Your task to perform on an android device: Search for flights from Seoul to Mexico city Image 0: 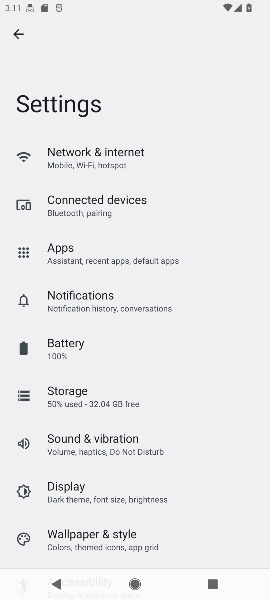
Step 0: press home button
Your task to perform on an android device: Search for flights from Seoul to Mexico city Image 1: 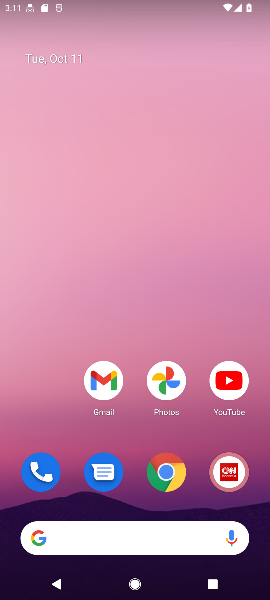
Step 1: click (164, 477)
Your task to perform on an android device: Search for flights from Seoul to Mexico city Image 2: 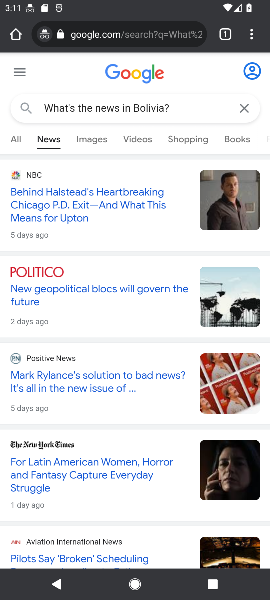
Step 2: click (250, 108)
Your task to perform on an android device: Search for flights from Seoul to Mexico city Image 3: 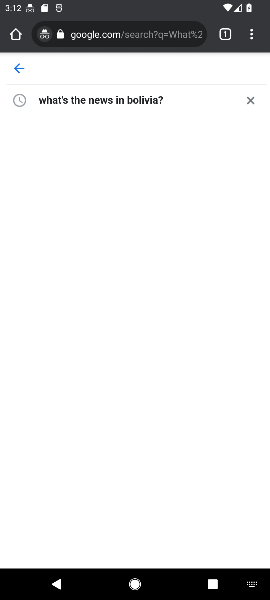
Step 3: type "flights from Seoul to Mexico city"
Your task to perform on an android device: Search for flights from Seoul to Mexico city Image 4: 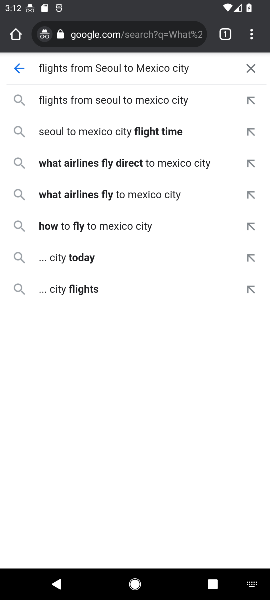
Step 4: click (198, 101)
Your task to perform on an android device: Search for flights from Seoul to Mexico city Image 5: 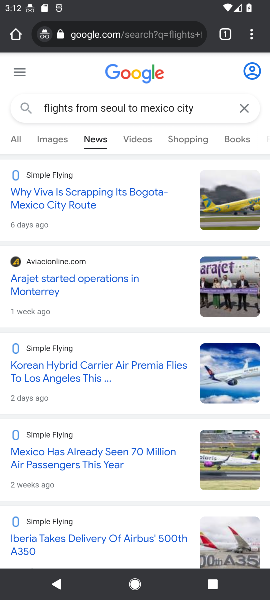
Step 5: click (14, 141)
Your task to perform on an android device: Search for flights from Seoul to Mexico city Image 6: 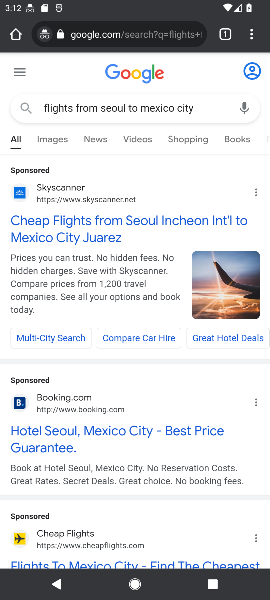
Step 6: drag from (130, 480) to (76, 166)
Your task to perform on an android device: Search for flights from Seoul to Mexico city Image 7: 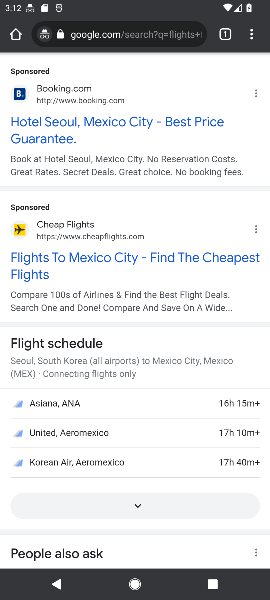
Step 7: drag from (102, 545) to (109, 194)
Your task to perform on an android device: Search for flights from Seoul to Mexico city Image 8: 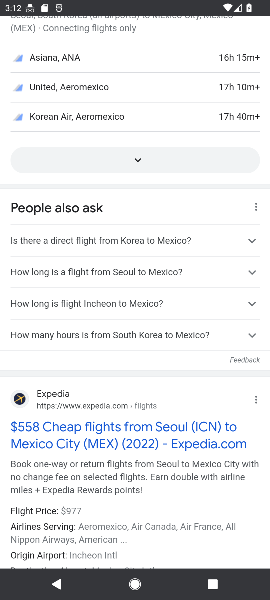
Step 8: click (107, 149)
Your task to perform on an android device: Search for flights from Seoul to Mexico city Image 9: 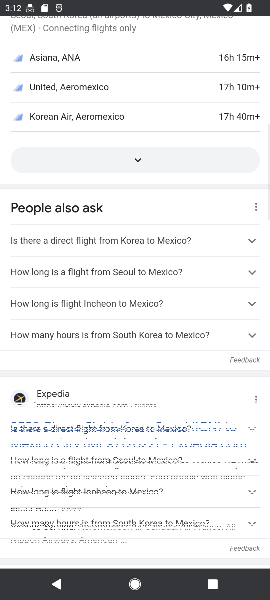
Step 9: click (123, 161)
Your task to perform on an android device: Search for flights from Seoul to Mexico city Image 10: 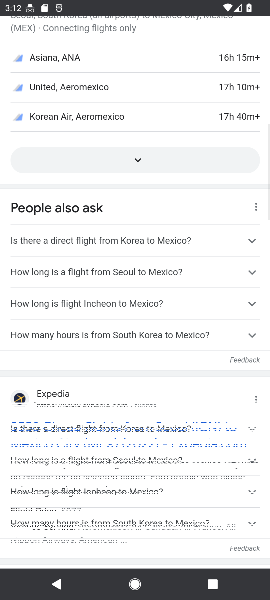
Step 10: drag from (181, 66) to (178, 208)
Your task to perform on an android device: Search for flights from Seoul to Mexico city Image 11: 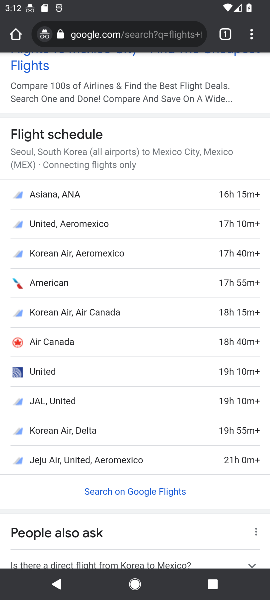
Step 11: click (170, 424)
Your task to perform on an android device: Search for flights from Seoul to Mexico city Image 12: 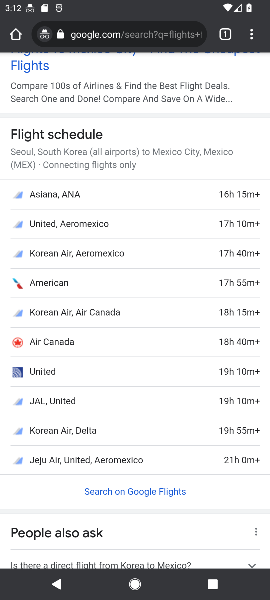
Step 12: click (113, 493)
Your task to perform on an android device: Search for flights from Seoul to Mexico city Image 13: 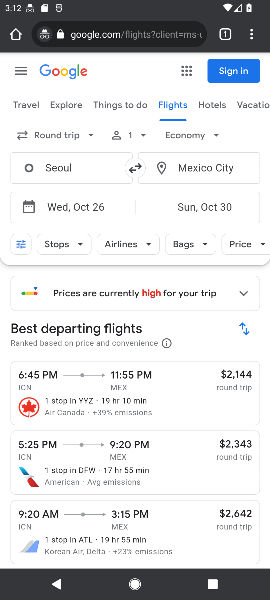
Step 13: task complete